Your task to perform on an android device: Go to privacy settings Image 0: 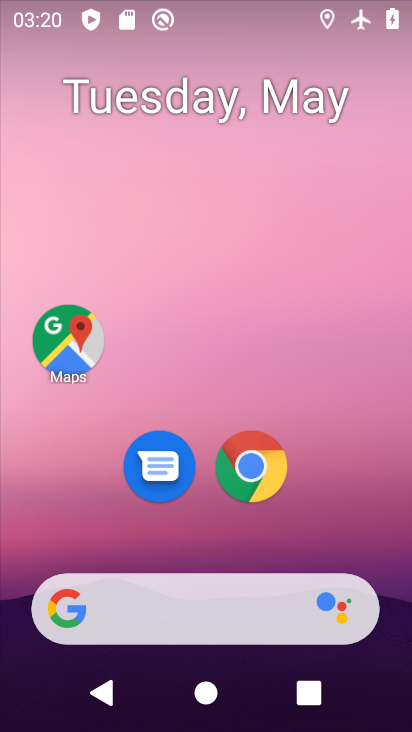
Step 0: drag from (329, 540) to (334, 153)
Your task to perform on an android device: Go to privacy settings Image 1: 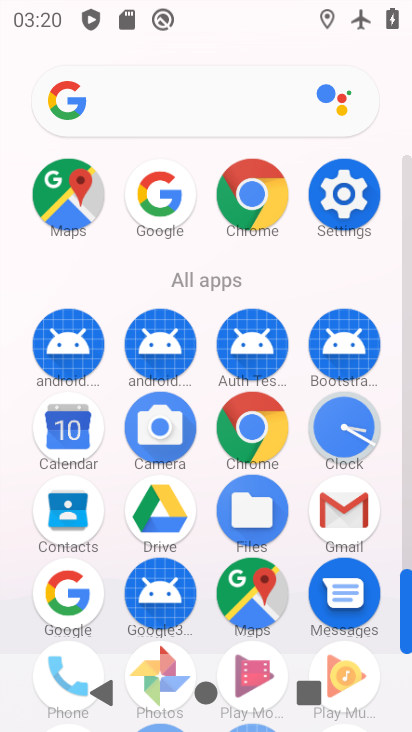
Step 1: click (235, 209)
Your task to perform on an android device: Go to privacy settings Image 2: 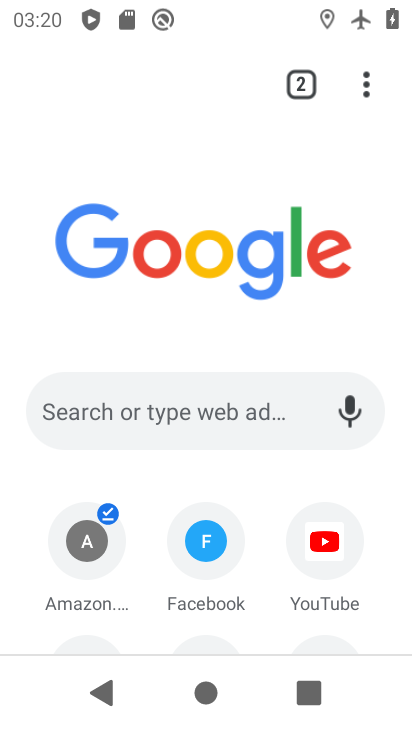
Step 2: click (360, 81)
Your task to perform on an android device: Go to privacy settings Image 3: 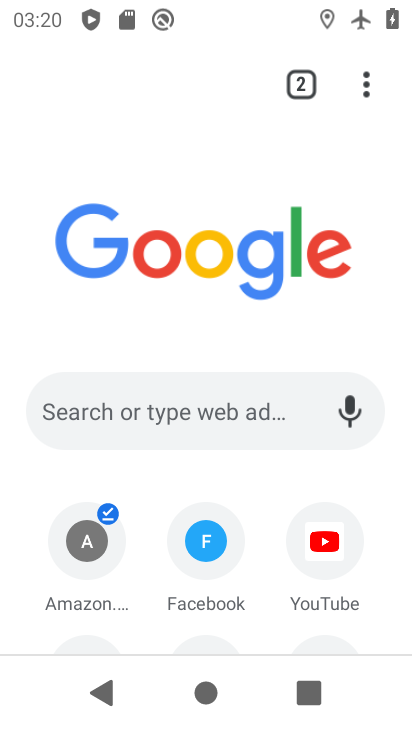
Step 3: click (347, 80)
Your task to perform on an android device: Go to privacy settings Image 4: 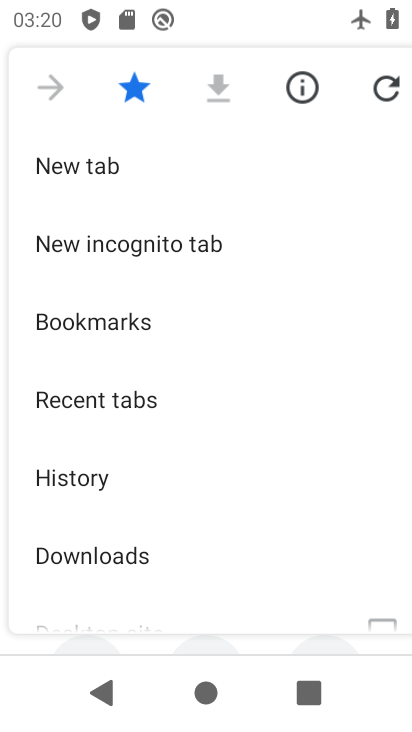
Step 4: drag from (201, 552) to (263, 238)
Your task to perform on an android device: Go to privacy settings Image 5: 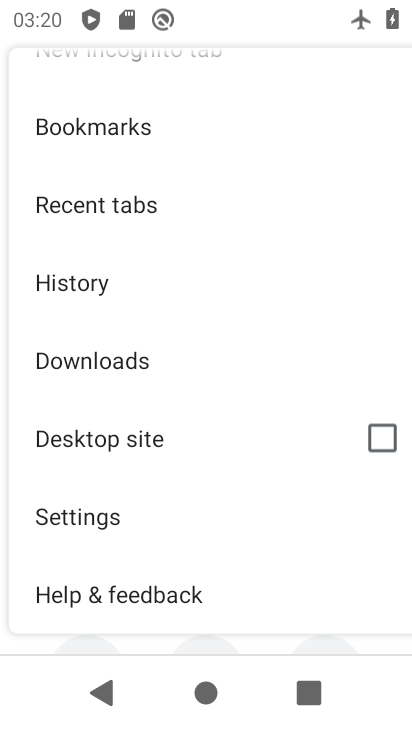
Step 5: click (110, 535)
Your task to perform on an android device: Go to privacy settings Image 6: 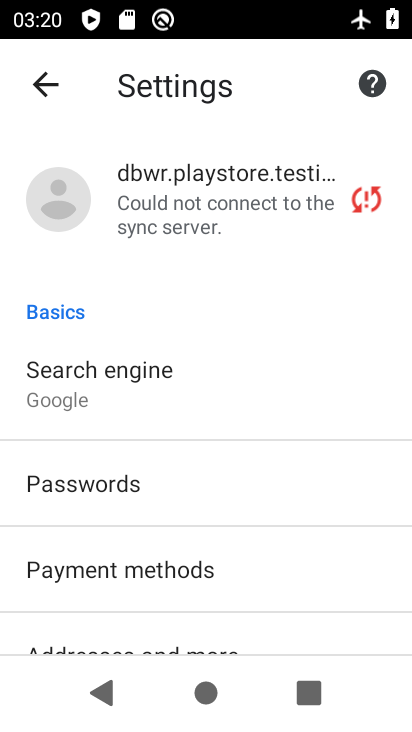
Step 6: drag from (196, 609) to (259, 288)
Your task to perform on an android device: Go to privacy settings Image 7: 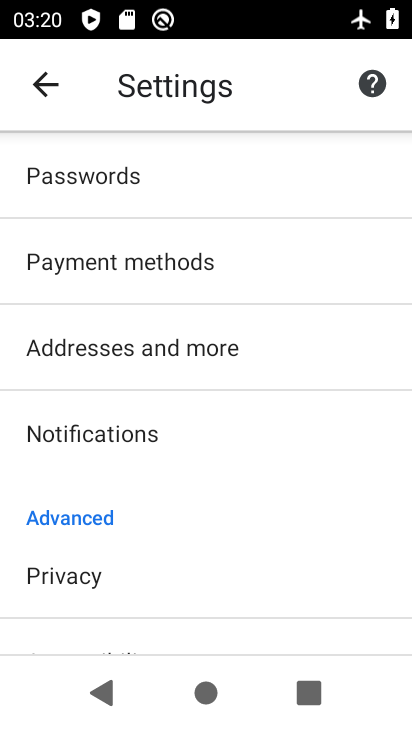
Step 7: click (155, 582)
Your task to perform on an android device: Go to privacy settings Image 8: 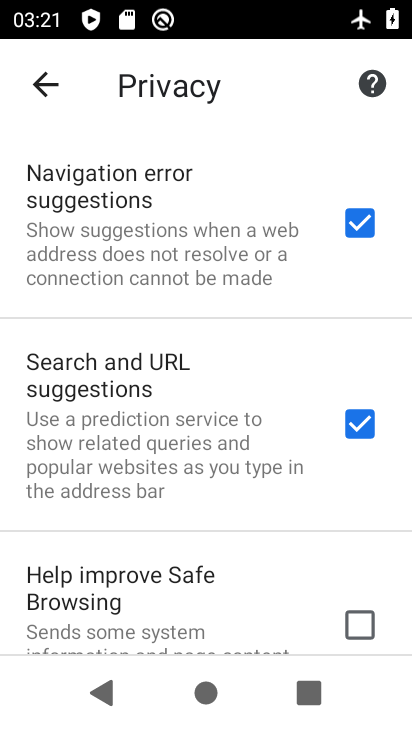
Step 8: task complete